Your task to perform on an android device: Search for vegetarian restaurants on Maps Image 0: 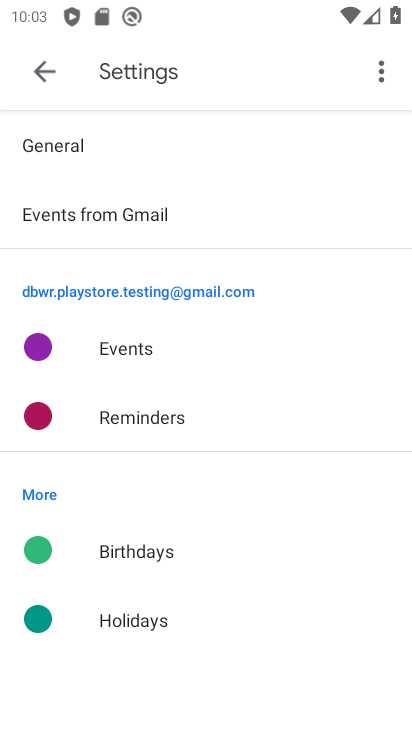
Step 0: press home button
Your task to perform on an android device: Search for vegetarian restaurants on Maps Image 1: 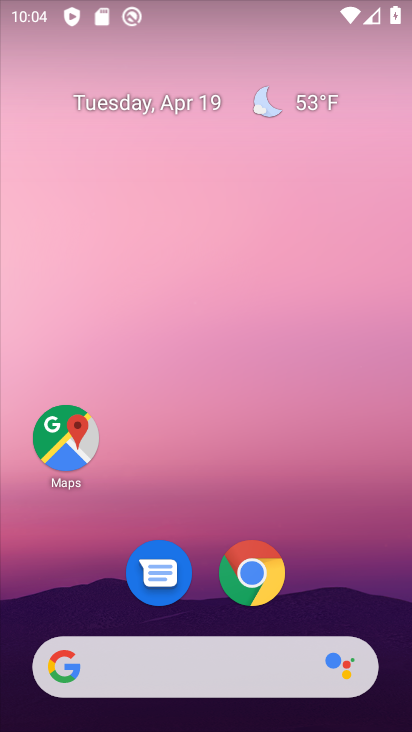
Step 1: click (61, 440)
Your task to perform on an android device: Search for vegetarian restaurants on Maps Image 2: 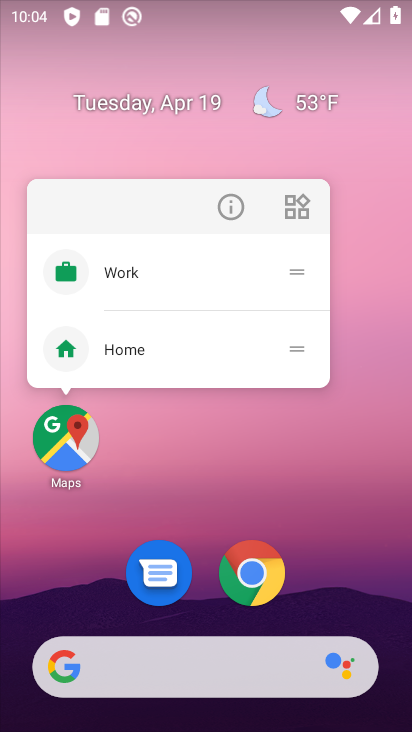
Step 2: click (61, 440)
Your task to perform on an android device: Search for vegetarian restaurants on Maps Image 3: 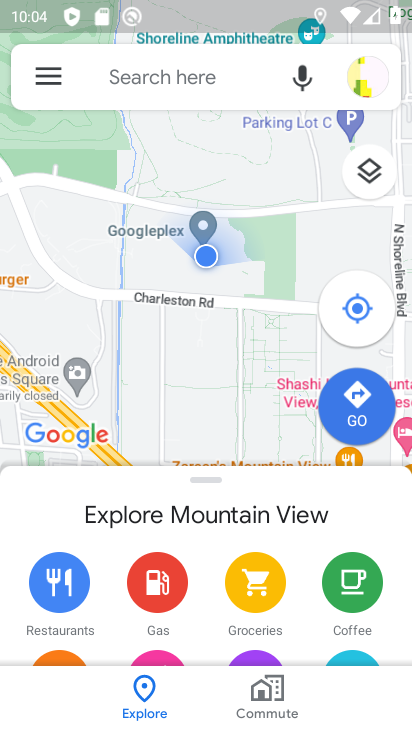
Step 3: click (194, 76)
Your task to perform on an android device: Search for vegetarian restaurants on Maps Image 4: 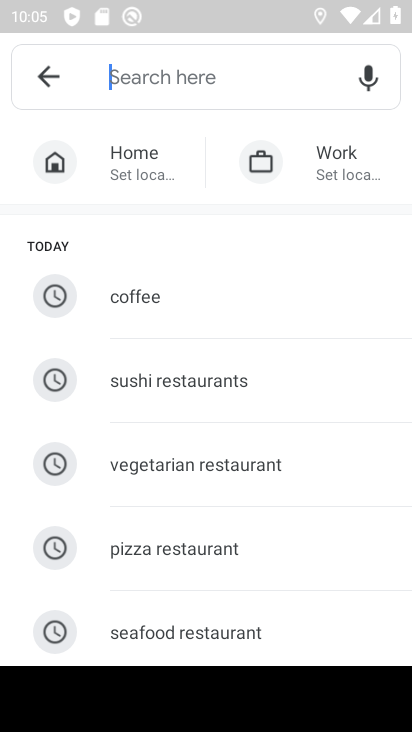
Step 4: type "vegetarian restaurants"
Your task to perform on an android device: Search for vegetarian restaurants on Maps Image 5: 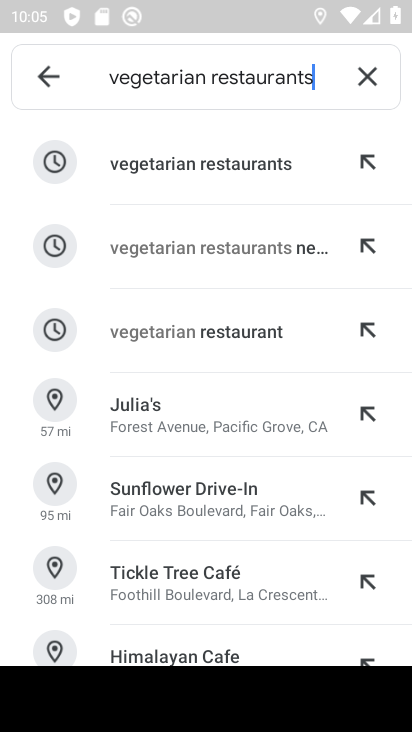
Step 5: click (193, 159)
Your task to perform on an android device: Search for vegetarian restaurants on Maps Image 6: 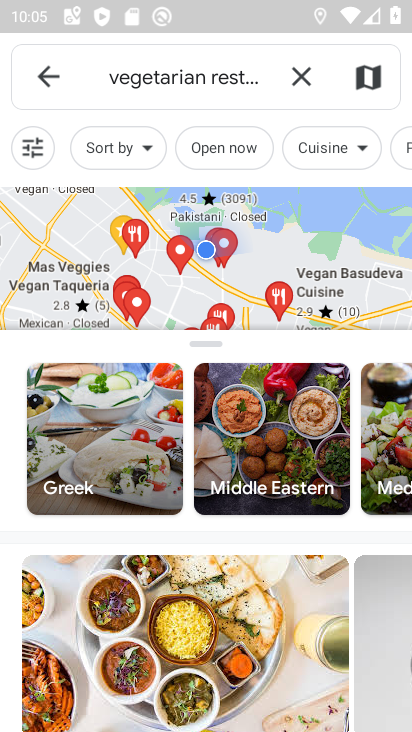
Step 6: task complete